Your task to perform on an android device: Search for pizza restaurants on Maps Image 0: 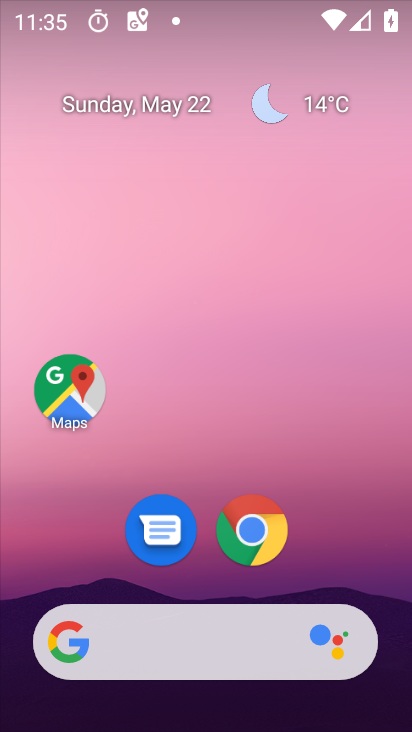
Step 0: click (64, 368)
Your task to perform on an android device: Search for pizza restaurants on Maps Image 1: 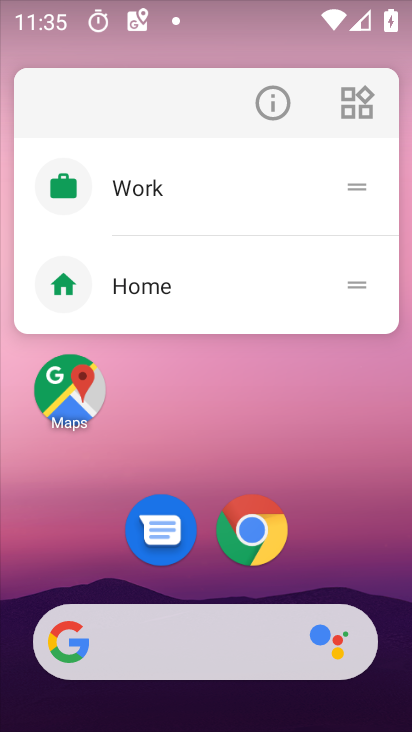
Step 1: click (78, 381)
Your task to perform on an android device: Search for pizza restaurants on Maps Image 2: 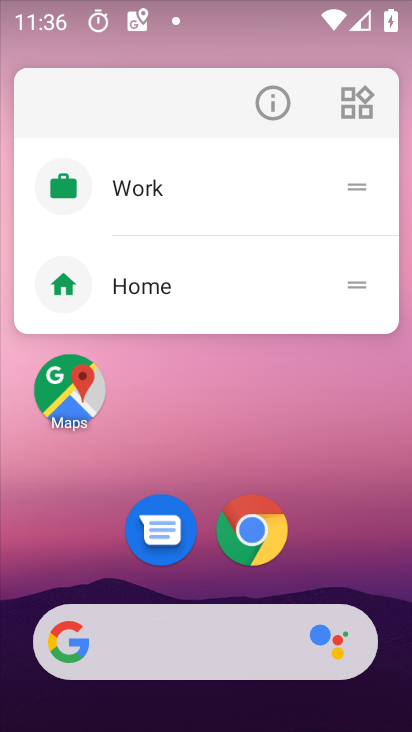
Step 2: click (78, 401)
Your task to perform on an android device: Search for pizza restaurants on Maps Image 3: 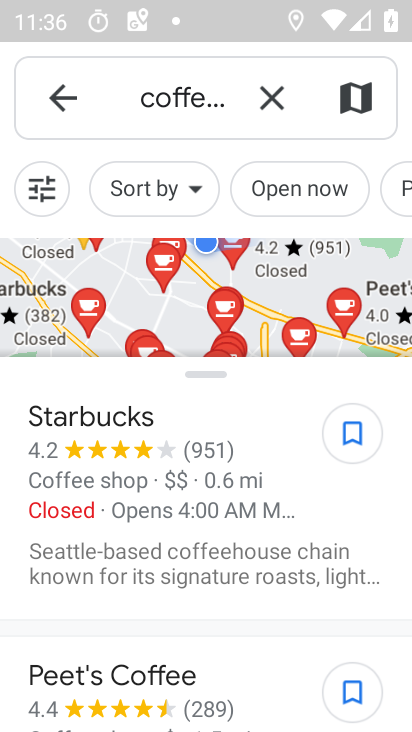
Step 3: click (279, 94)
Your task to perform on an android device: Search for pizza restaurants on Maps Image 4: 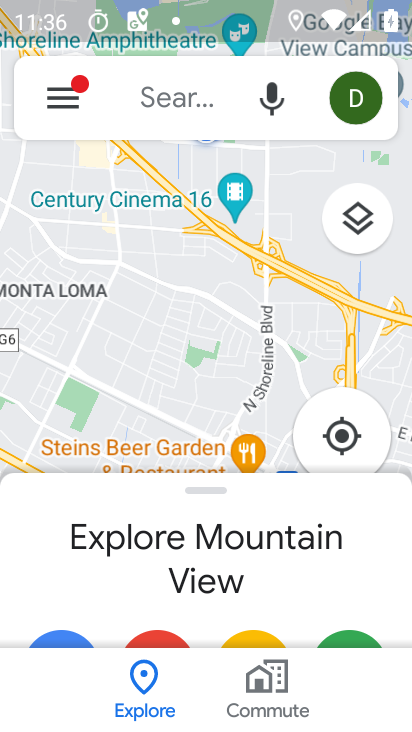
Step 4: click (139, 97)
Your task to perform on an android device: Search for pizza restaurants on Maps Image 5: 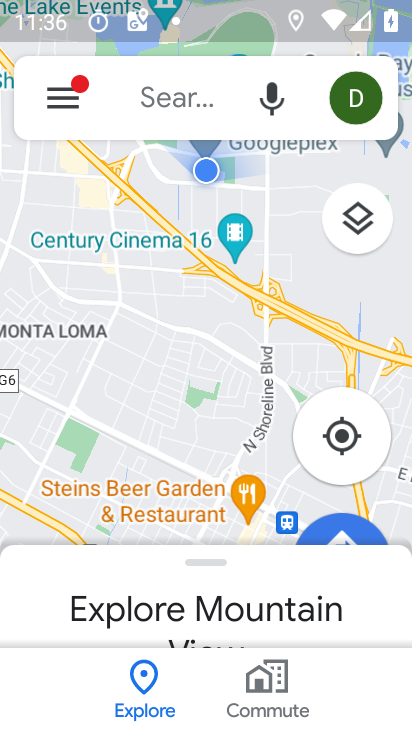
Step 5: click (167, 107)
Your task to perform on an android device: Search for pizza restaurants on Maps Image 6: 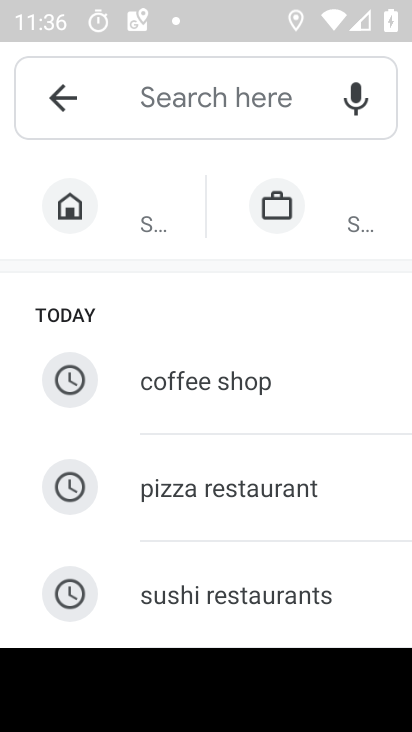
Step 6: type "pizza restaurants "
Your task to perform on an android device: Search for pizza restaurants on Maps Image 7: 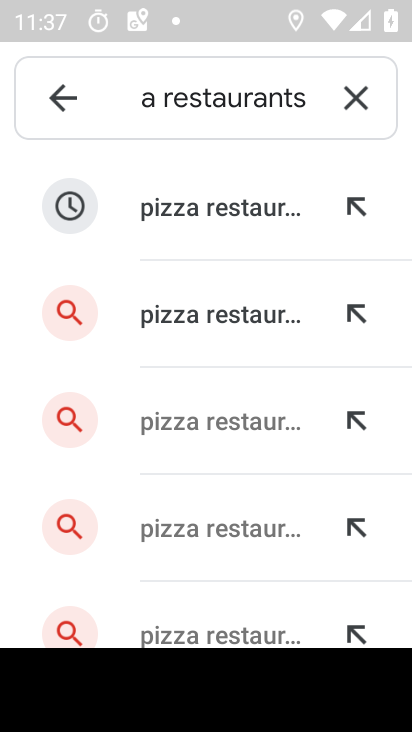
Step 7: click (175, 317)
Your task to perform on an android device: Search for pizza restaurants on Maps Image 8: 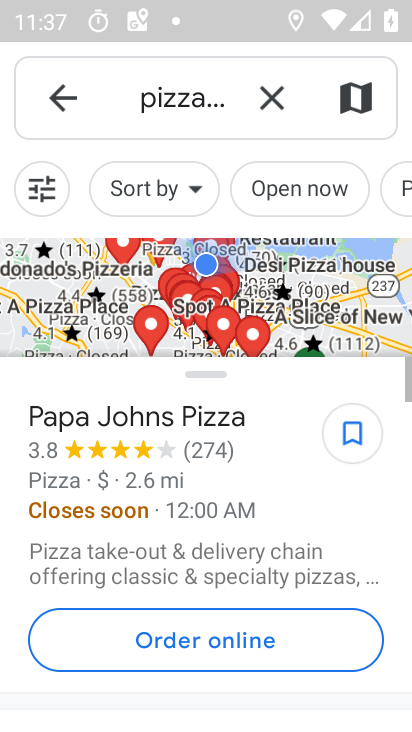
Step 8: task complete